Your task to perform on an android device: change the clock display to show seconds Image 0: 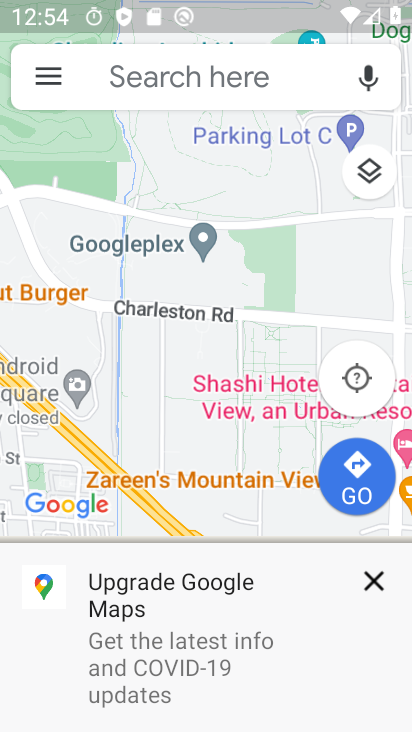
Step 0: press back button
Your task to perform on an android device: change the clock display to show seconds Image 1: 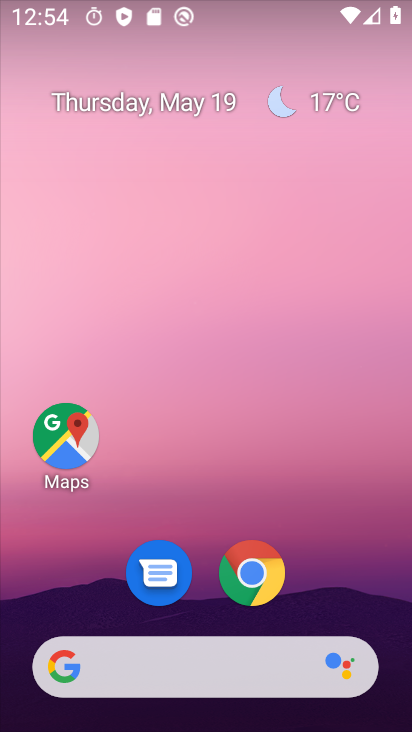
Step 1: drag from (191, 586) to (264, 162)
Your task to perform on an android device: change the clock display to show seconds Image 2: 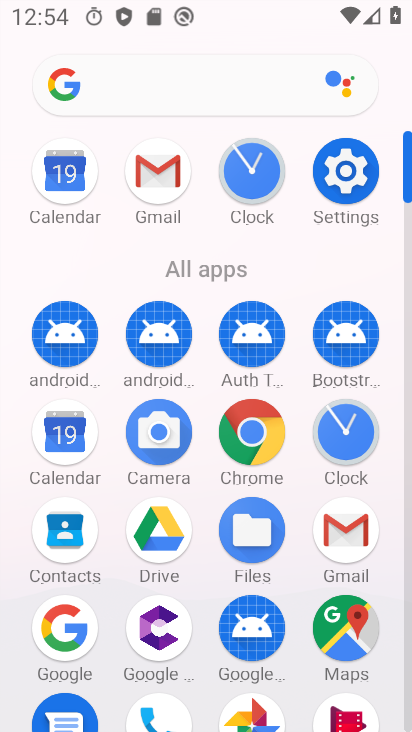
Step 2: click (260, 181)
Your task to perform on an android device: change the clock display to show seconds Image 3: 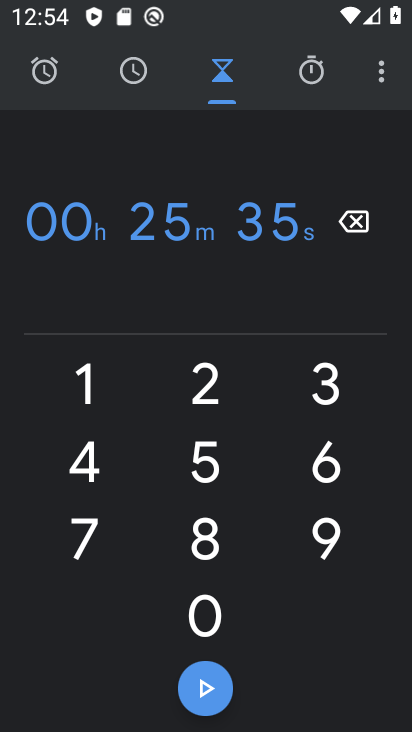
Step 3: click (377, 75)
Your task to perform on an android device: change the clock display to show seconds Image 4: 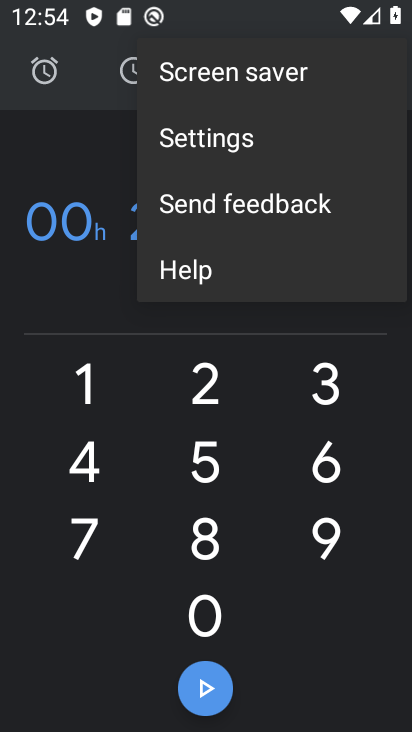
Step 4: click (254, 134)
Your task to perform on an android device: change the clock display to show seconds Image 5: 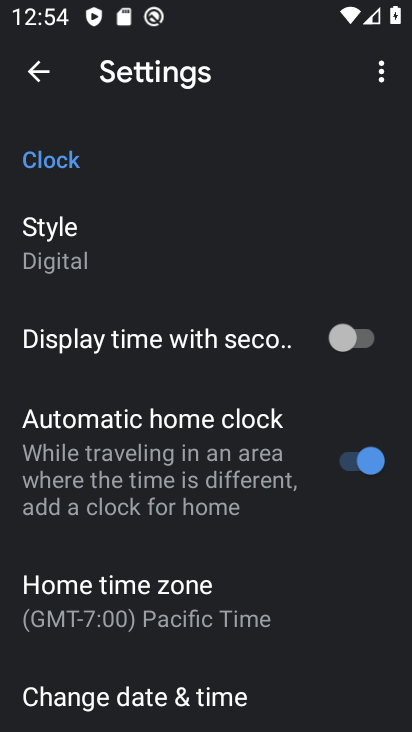
Step 5: click (98, 247)
Your task to perform on an android device: change the clock display to show seconds Image 6: 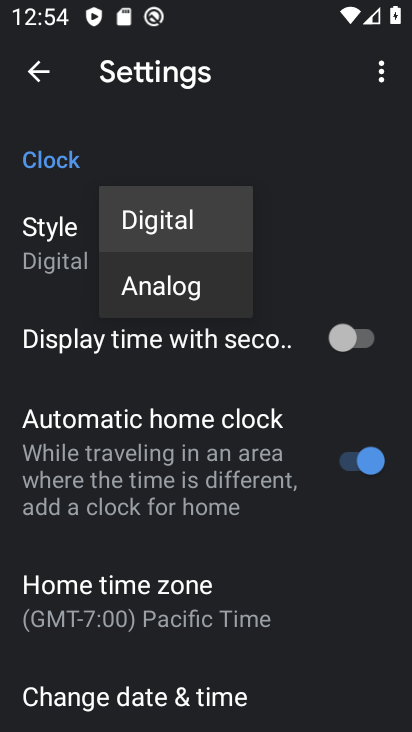
Step 6: click (152, 223)
Your task to perform on an android device: change the clock display to show seconds Image 7: 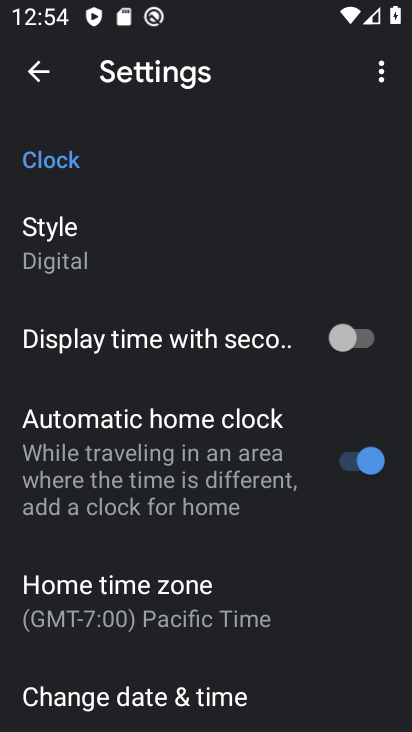
Step 7: click (344, 332)
Your task to perform on an android device: change the clock display to show seconds Image 8: 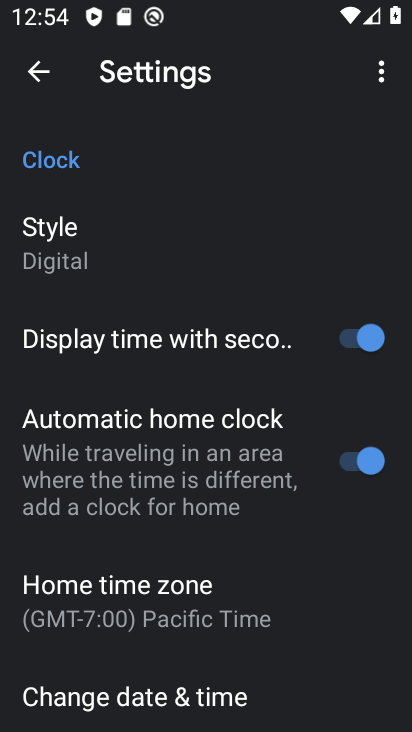
Step 8: task complete